Your task to perform on an android device: turn off priority inbox in the gmail app Image 0: 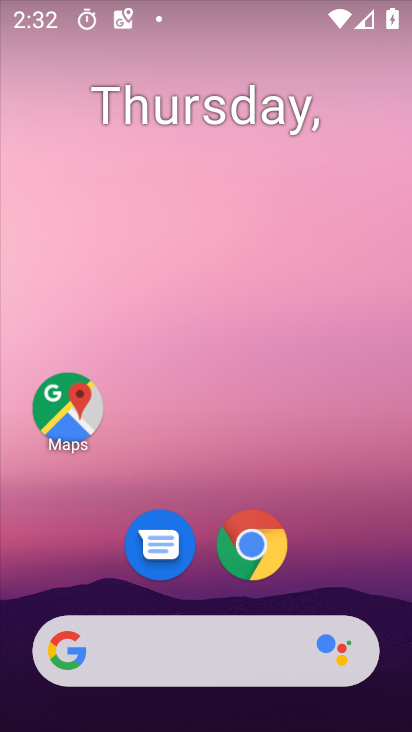
Step 0: drag from (226, 728) to (236, 7)
Your task to perform on an android device: turn off priority inbox in the gmail app Image 1: 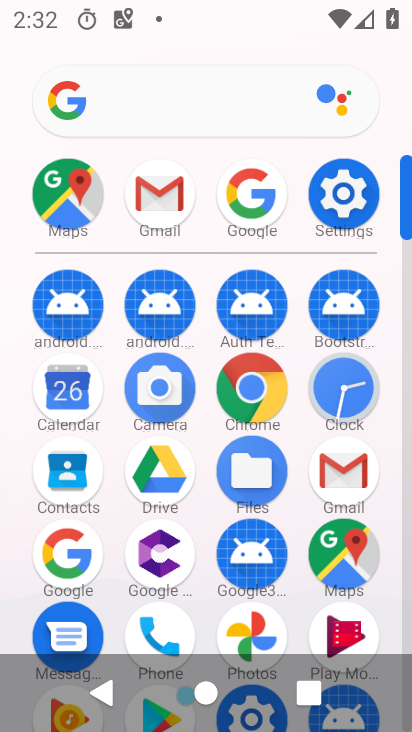
Step 1: click (349, 465)
Your task to perform on an android device: turn off priority inbox in the gmail app Image 2: 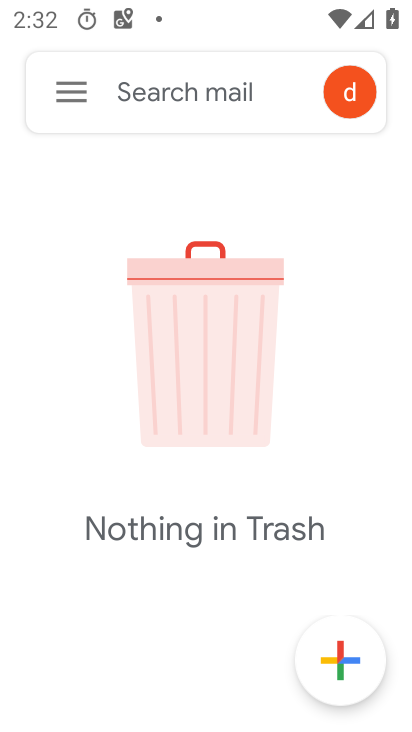
Step 2: click (72, 88)
Your task to perform on an android device: turn off priority inbox in the gmail app Image 3: 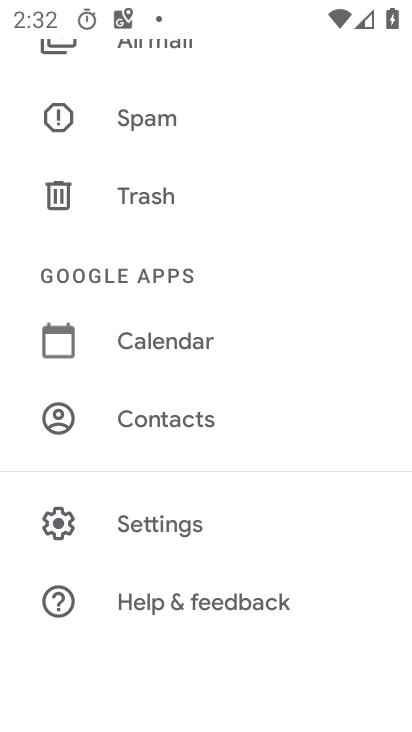
Step 3: click (180, 522)
Your task to perform on an android device: turn off priority inbox in the gmail app Image 4: 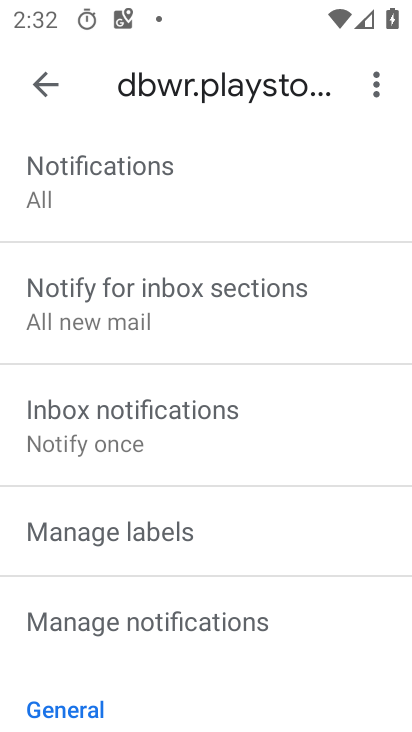
Step 4: task complete